Your task to perform on an android device: open the mobile data screen to see how much data has been used Image 0: 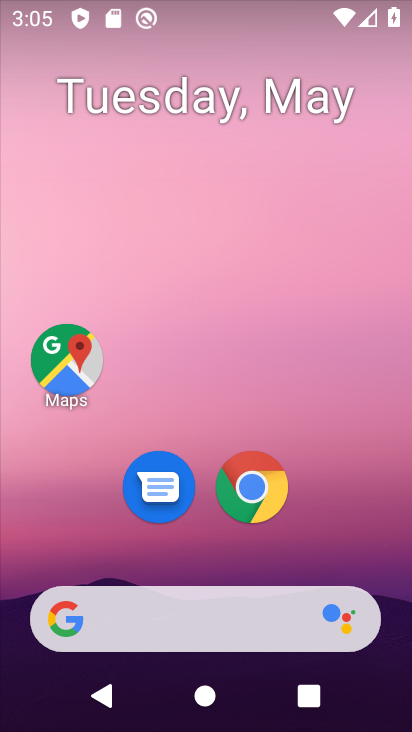
Step 0: drag from (217, 563) to (277, 14)
Your task to perform on an android device: open the mobile data screen to see how much data has been used Image 1: 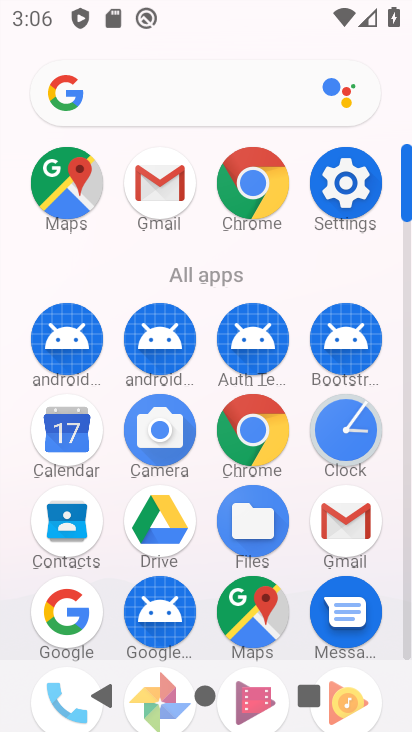
Step 1: click (343, 152)
Your task to perform on an android device: open the mobile data screen to see how much data has been used Image 2: 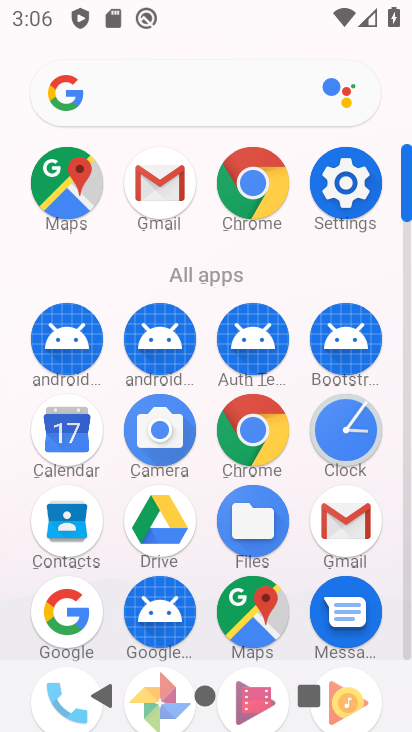
Step 2: click (343, 152)
Your task to perform on an android device: open the mobile data screen to see how much data has been used Image 3: 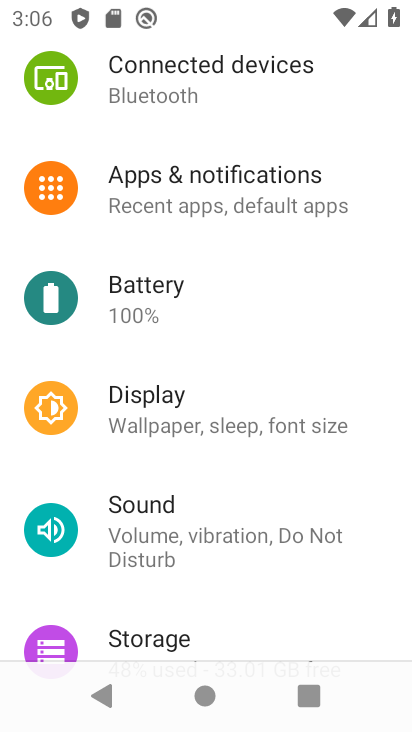
Step 3: drag from (145, 209) to (209, 532)
Your task to perform on an android device: open the mobile data screen to see how much data has been used Image 4: 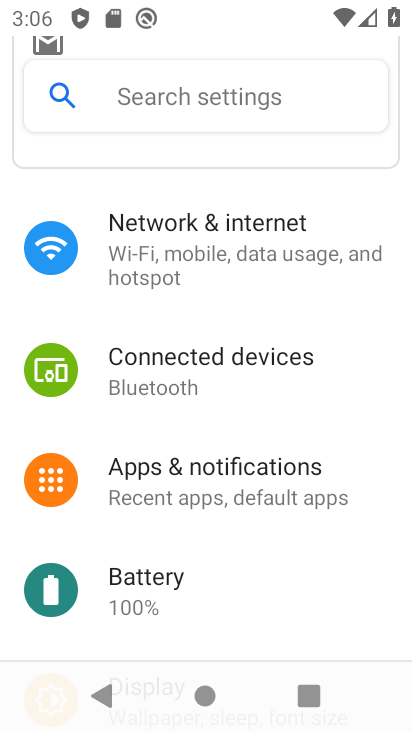
Step 4: click (212, 213)
Your task to perform on an android device: open the mobile data screen to see how much data has been used Image 5: 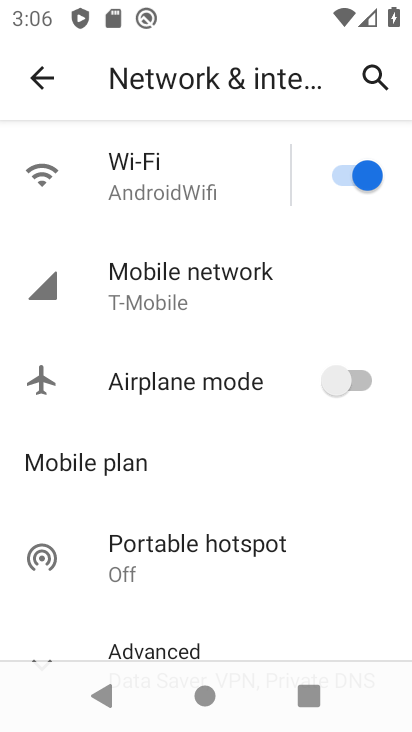
Step 5: click (212, 213)
Your task to perform on an android device: open the mobile data screen to see how much data has been used Image 6: 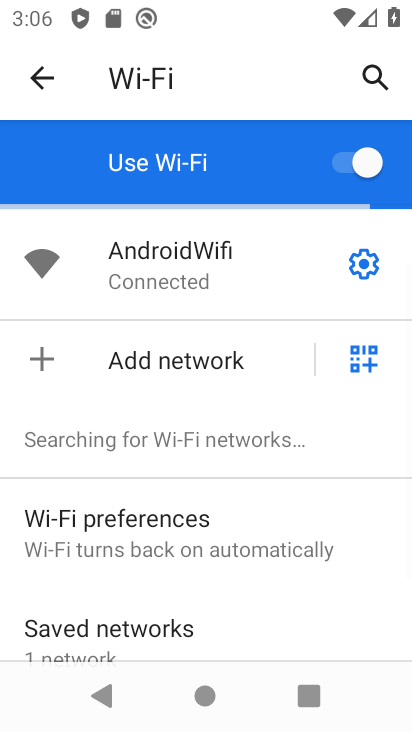
Step 6: click (21, 72)
Your task to perform on an android device: open the mobile data screen to see how much data has been used Image 7: 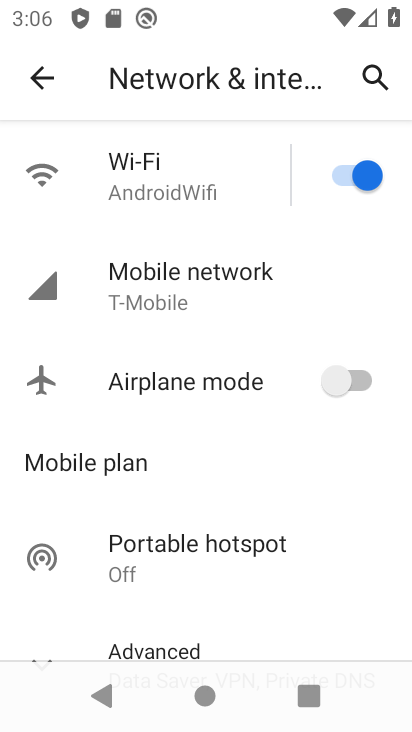
Step 7: click (122, 305)
Your task to perform on an android device: open the mobile data screen to see how much data has been used Image 8: 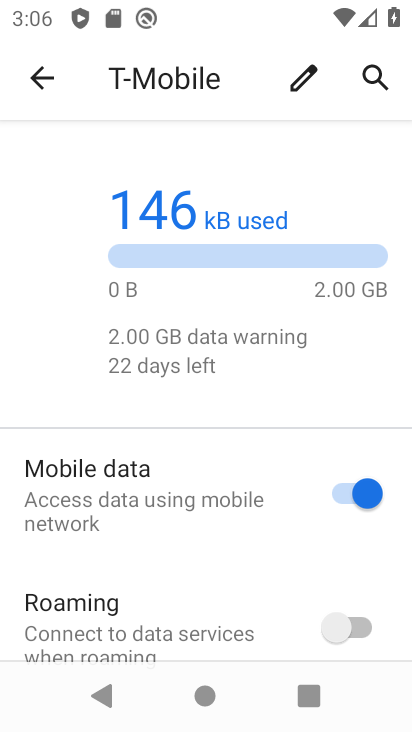
Step 8: task complete